Your task to perform on an android device: Go to Maps Image 0: 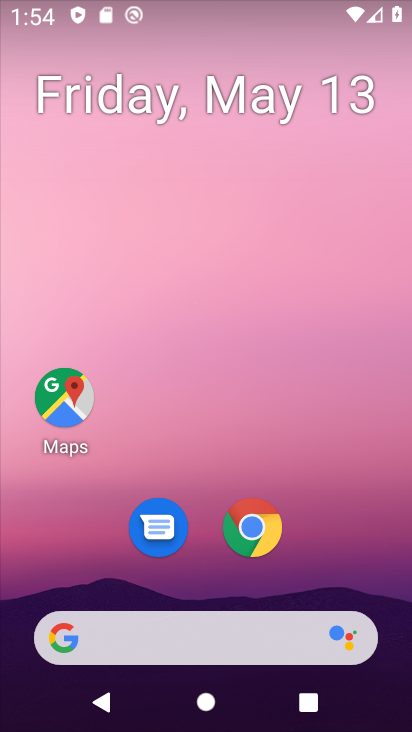
Step 0: click (59, 412)
Your task to perform on an android device: Go to Maps Image 1: 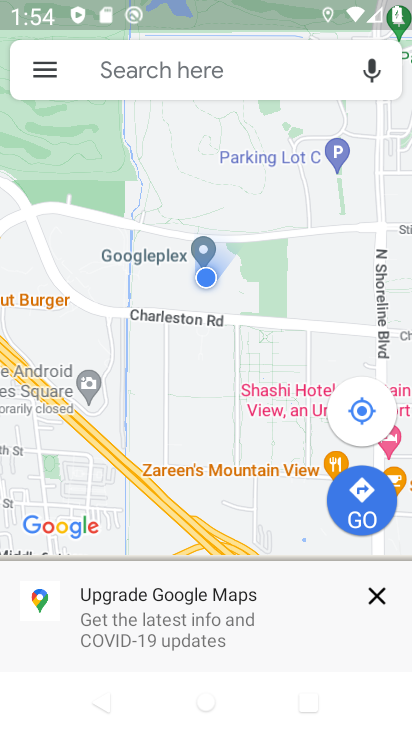
Step 1: task complete